Your task to perform on an android device: add a contact in the contacts app Image 0: 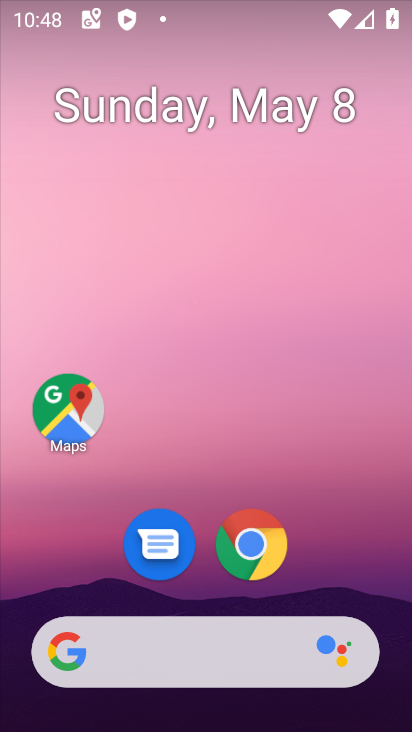
Step 0: drag from (341, 587) to (234, 182)
Your task to perform on an android device: add a contact in the contacts app Image 1: 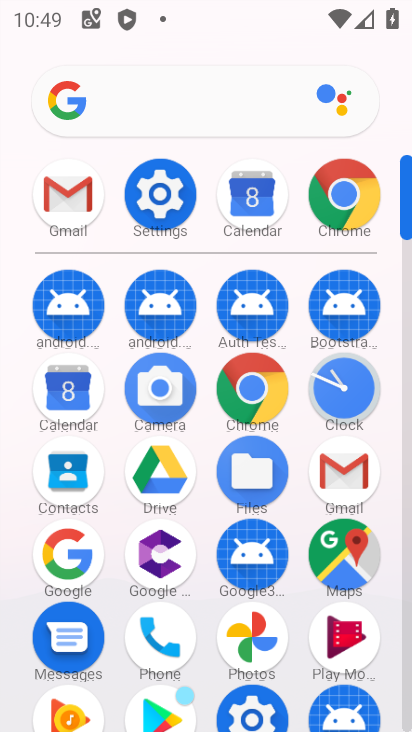
Step 1: click (79, 486)
Your task to perform on an android device: add a contact in the contacts app Image 2: 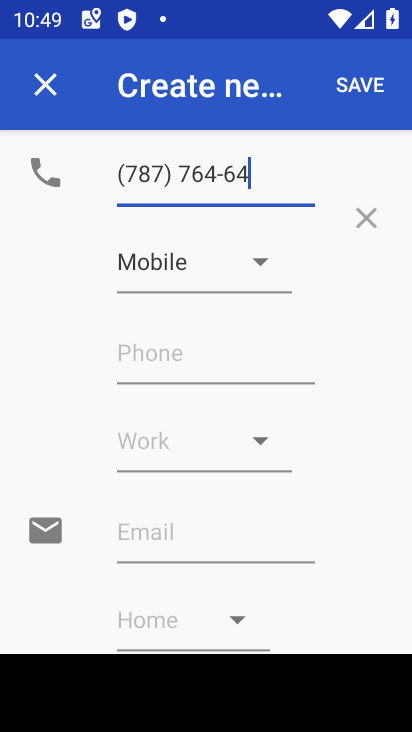
Step 2: click (357, 73)
Your task to perform on an android device: add a contact in the contacts app Image 3: 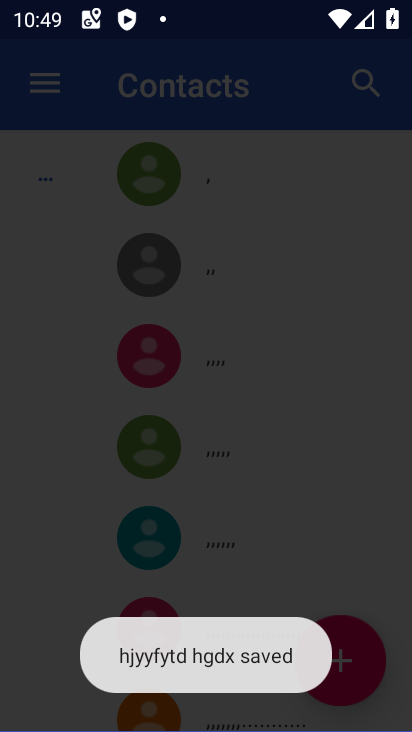
Step 3: task complete